Your task to perform on an android device: change the clock display to analog Image 0: 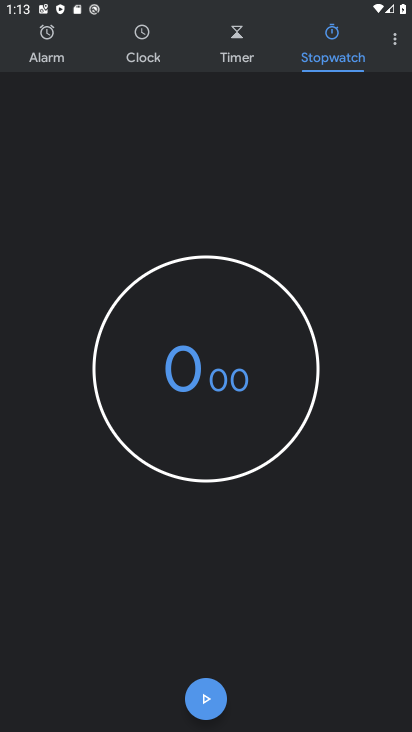
Step 0: press home button
Your task to perform on an android device: change the clock display to analog Image 1: 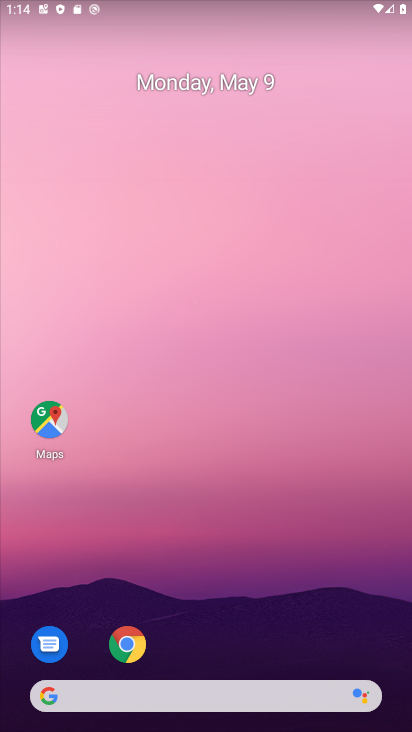
Step 1: drag from (267, 616) to (286, 173)
Your task to perform on an android device: change the clock display to analog Image 2: 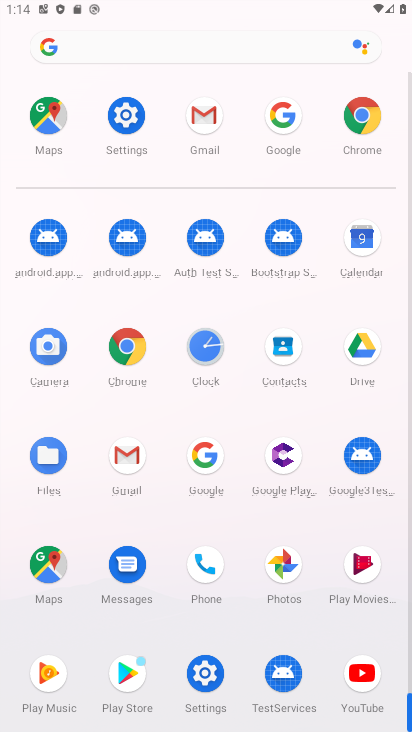
Step 2: click (217, 364)
Your task to perform on an android device: change the clock display to analog Image 3: 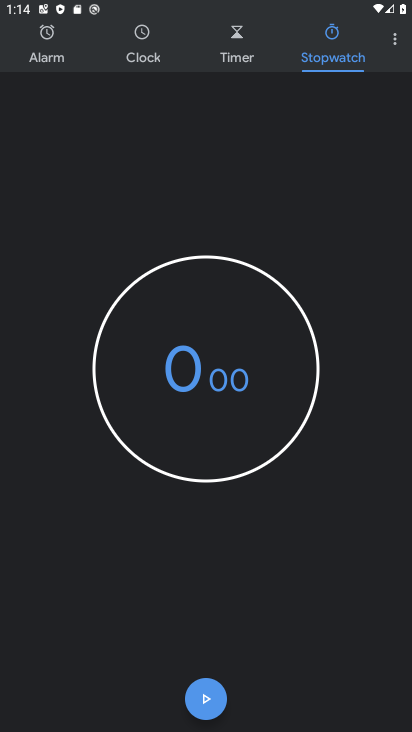
Step 3: click (398, 44)
Your task to perform on an android device: change the clock display to analog Image 4: 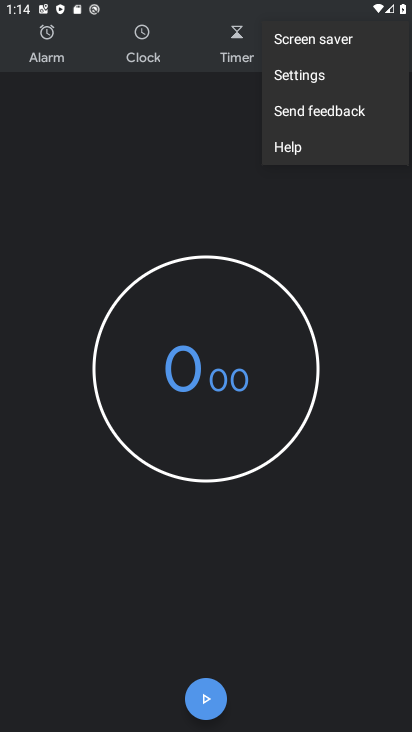
Step 4: click (300, 66)
Your task to perform on an android device: change the clock display to analog Image 5: 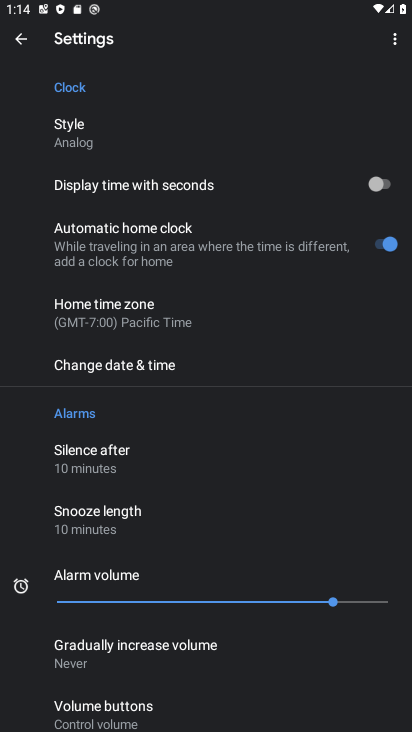
Step 5: task complete